Your task to perform on an android device: Open Google Chrome Image 0: 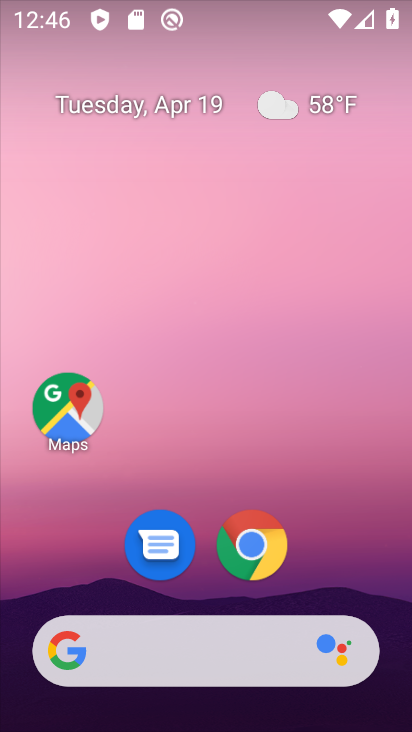
Step 0: click (247, 547)
Your task to perform on an android device: Open Google Chrome Image 1: 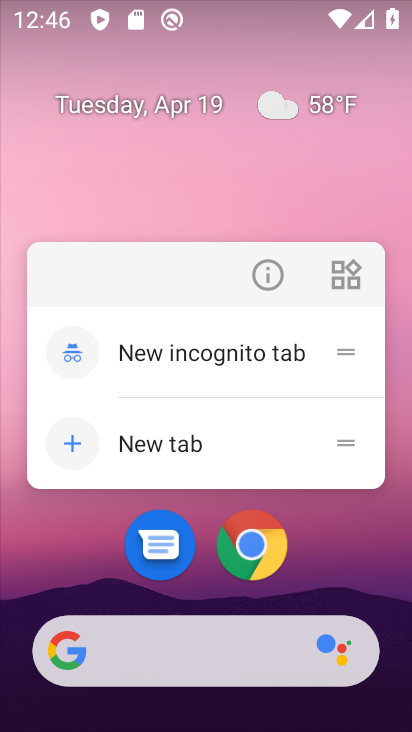
Step 1: click (254, 542)
Your task to perform on an android device: Open Google Chrome Image 2: 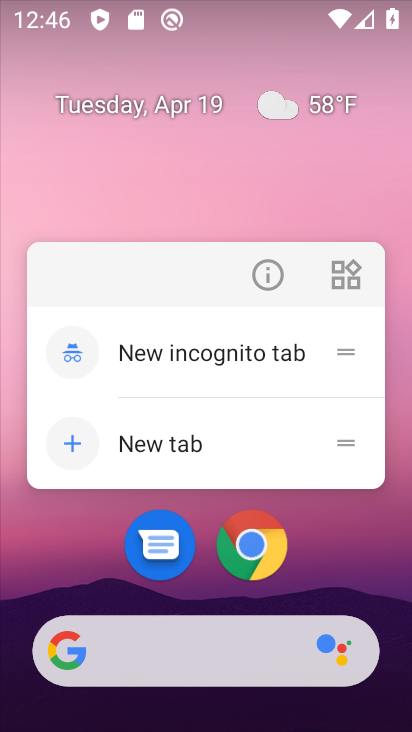
Step 2: click (256, 552)
Your task to perform on an android device: Open Google Chrome Image 3: 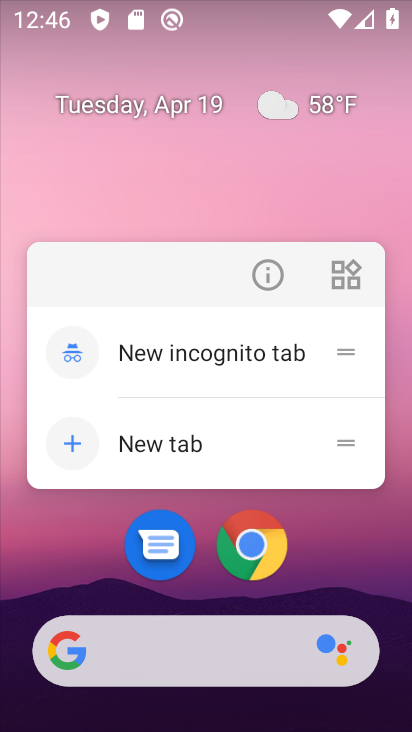
Step 3: drag from (241, 459) to (259, 83)
Your task to perform on an android device: Open Google Chrome Image 4: 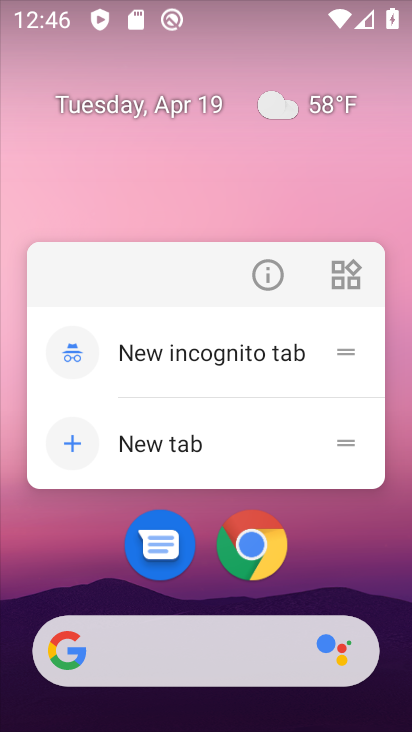
Step 4: click (197, 582)
Your task to perform on an android device: Open Google Chrome Image 5: 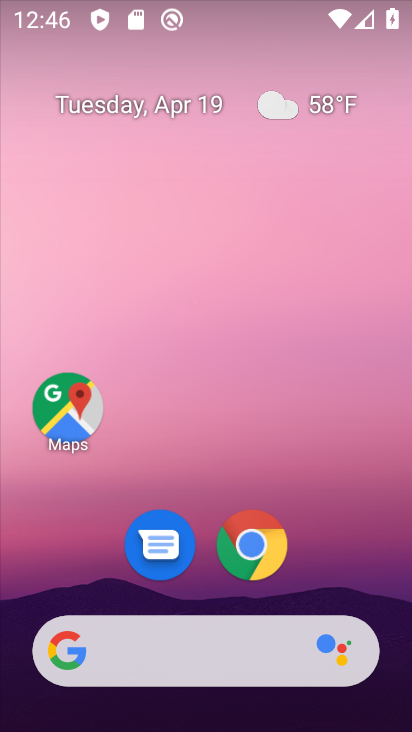
Step 5: drag from (235, 375) to (260, 33)
Your task to perform on an android device: Open Google Chrome Image 6: 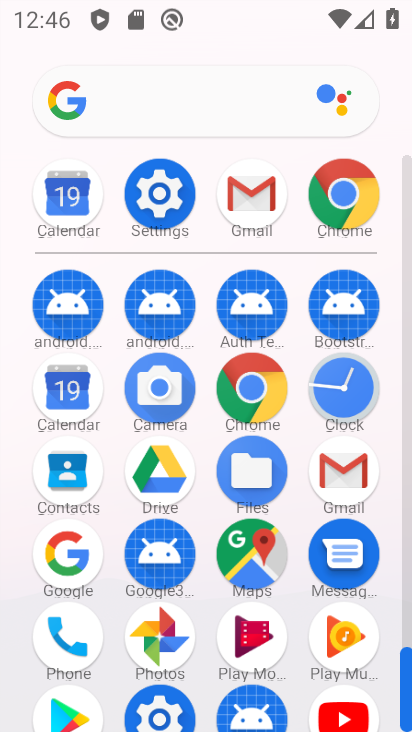
Step 6: click (350, 193)
Your task to perform on an android device: Open Google Chrome Image 7: 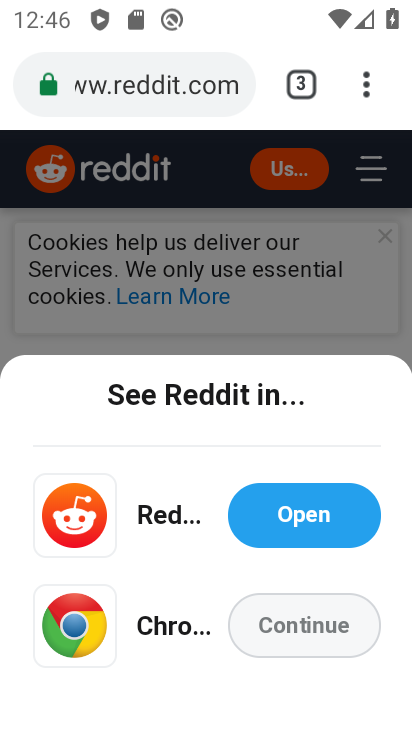
Step 7: click (234, 312)
Your task to perform on an android device: Open Google Chrome Image 8: 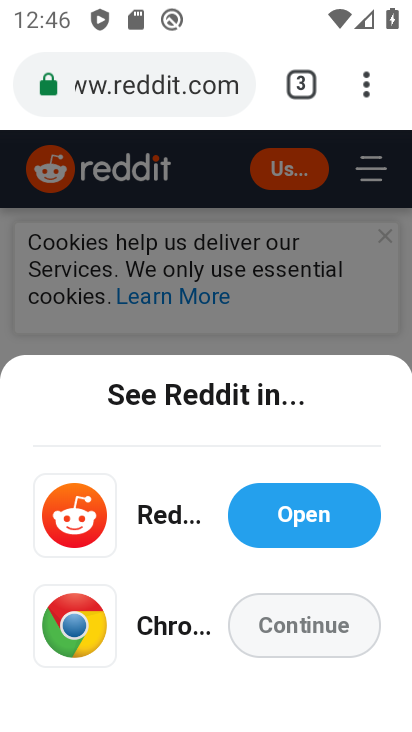
Step 8: click (56, 298)
Your task to perform on an android device: Open Google Chrome Image 9: 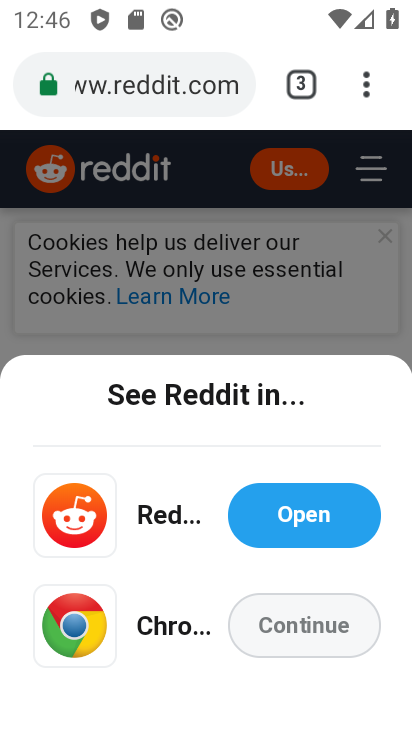
Step 9: task complete